Your task to perform on an android device: delete a single message in the gmail app Image 0: 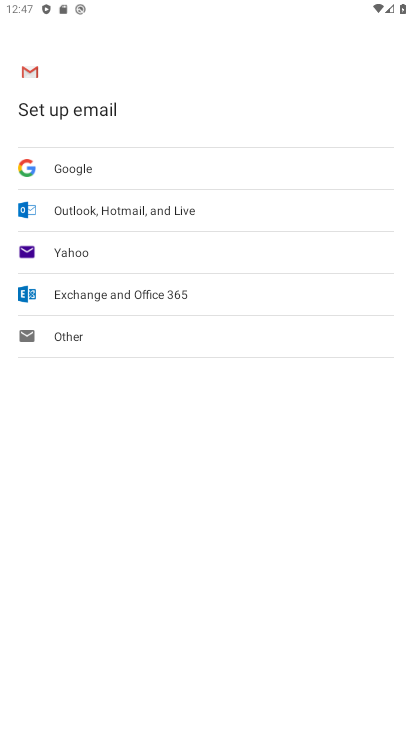
Step 0: press home button
Your task to perform on an android device: delete a single message in the gmail app Image 1: 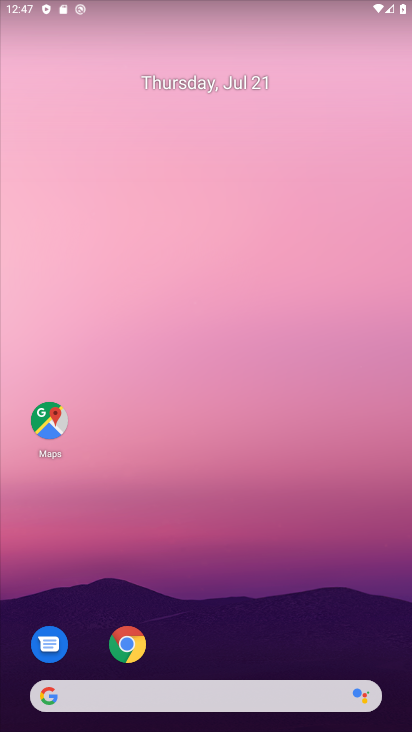
Step 1: drag from (231, 666) to (207, 125)
Your task to perform on an android device: delete a single message in the gmail app Image 2: 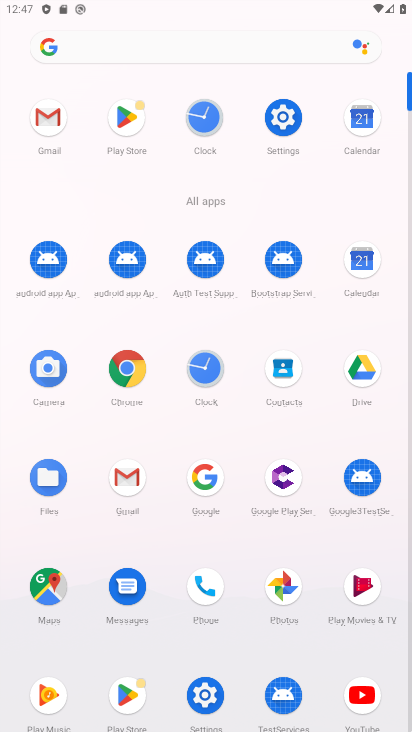
Step 2: click (129, 467)
Your task to perform on an android device: delete a single message in the gmail app Image 3: 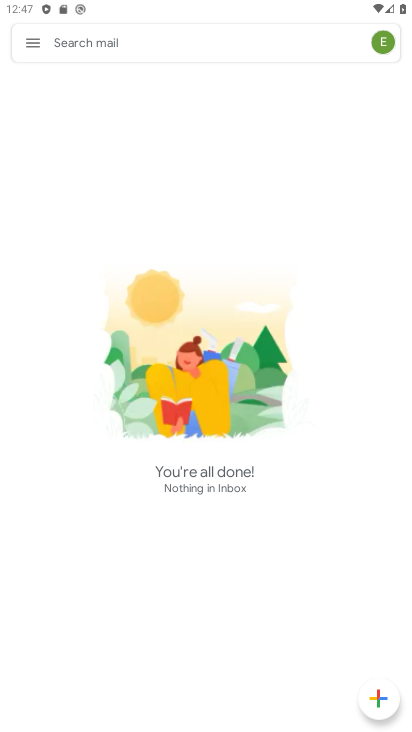
Step 3: click (41, 44)
Your task to perform on an android device: delete a single message in the gmail app Image 4: 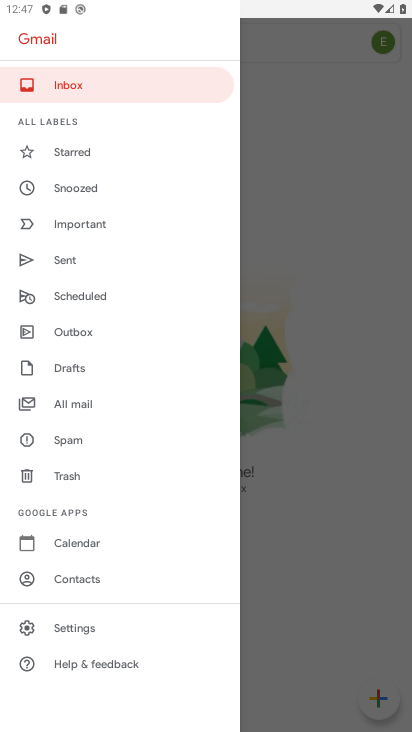
Step 4: click (55, 397)
Your task to perform on an android device: delete a single message in the gmail app Image 5: 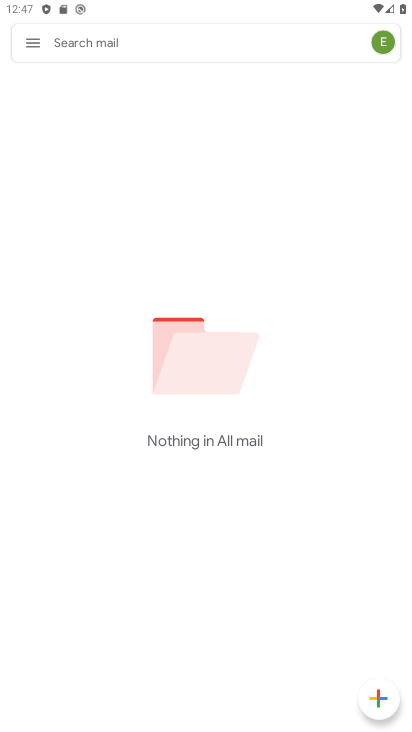
Step 5: task complete